Your task to perform on an android device: turn on javascript in the chrome app Image 0: 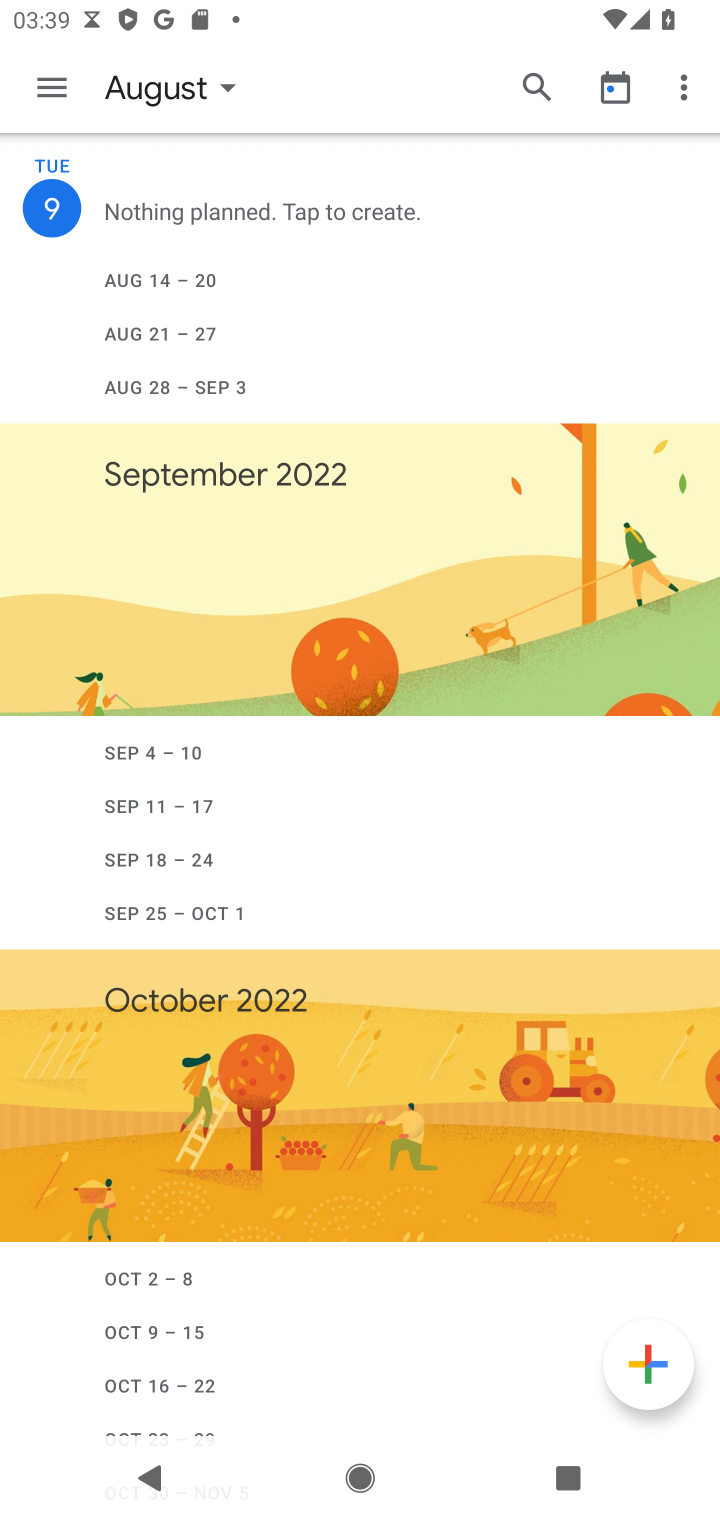
Step 0: press home button
Your task to perform on an android device: turn on javascript in the chrome app Image 1: 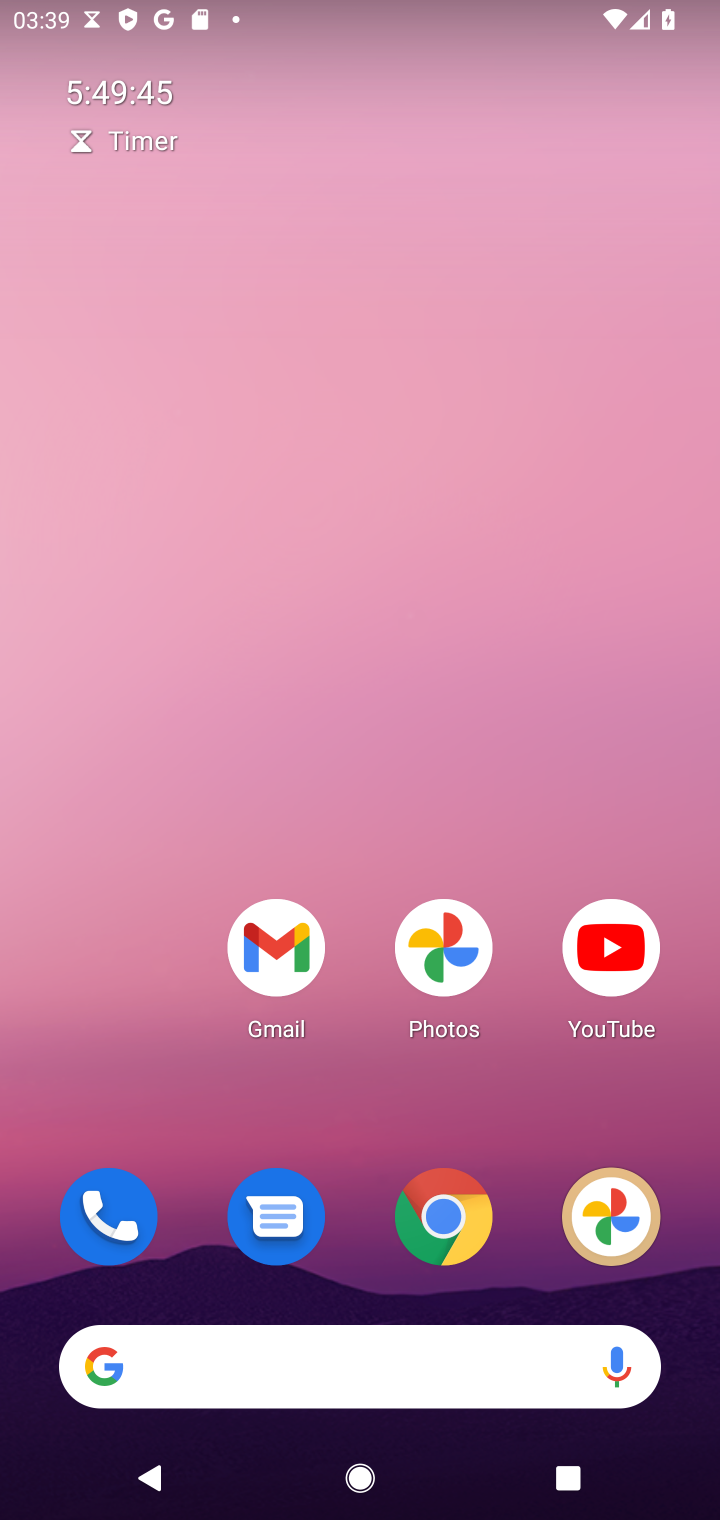
Step 1: click (434, 1207)
Your task to perform on an android device: turn on javascript in the chrome app Image 2: 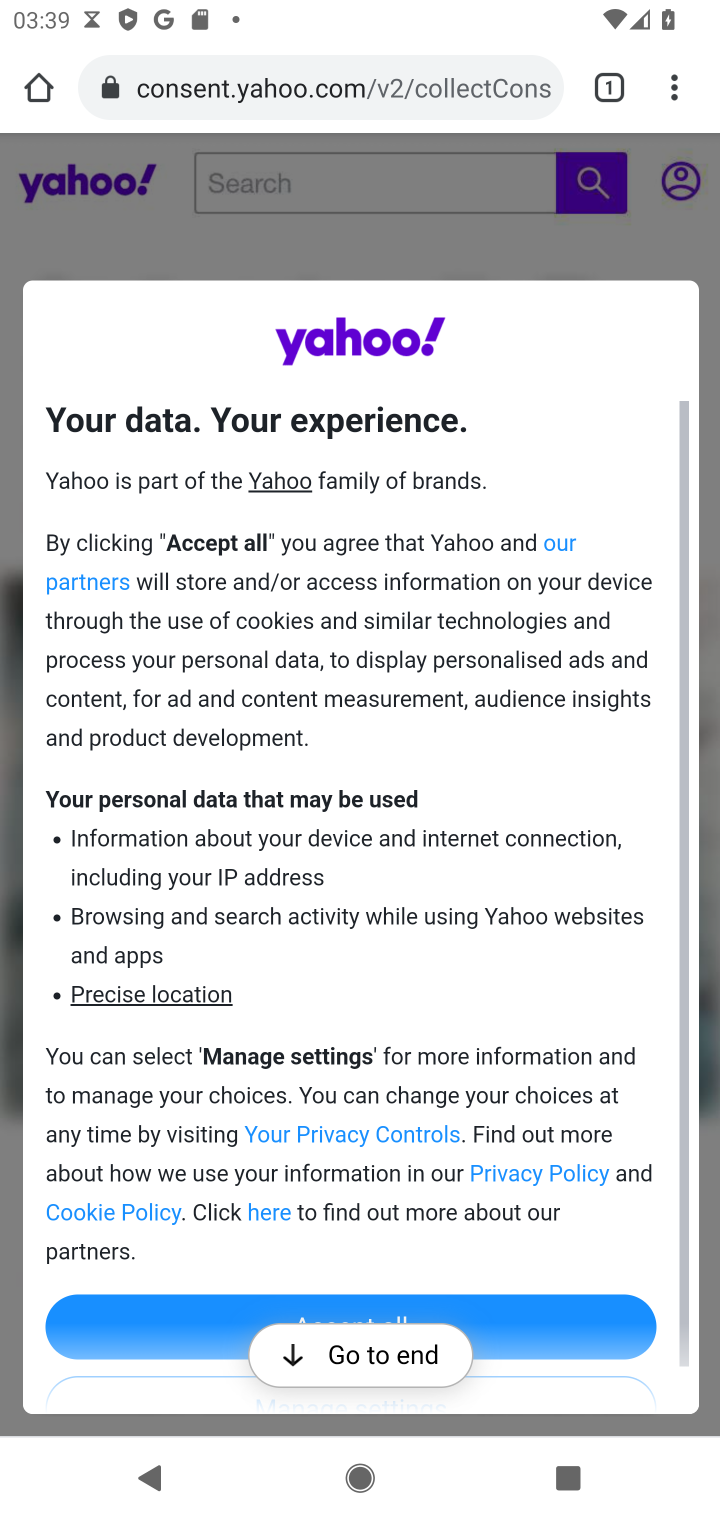
Step 2: click (681, 74)
Your task to perform on an android device: turn on javascript in the chrome app Image 3: 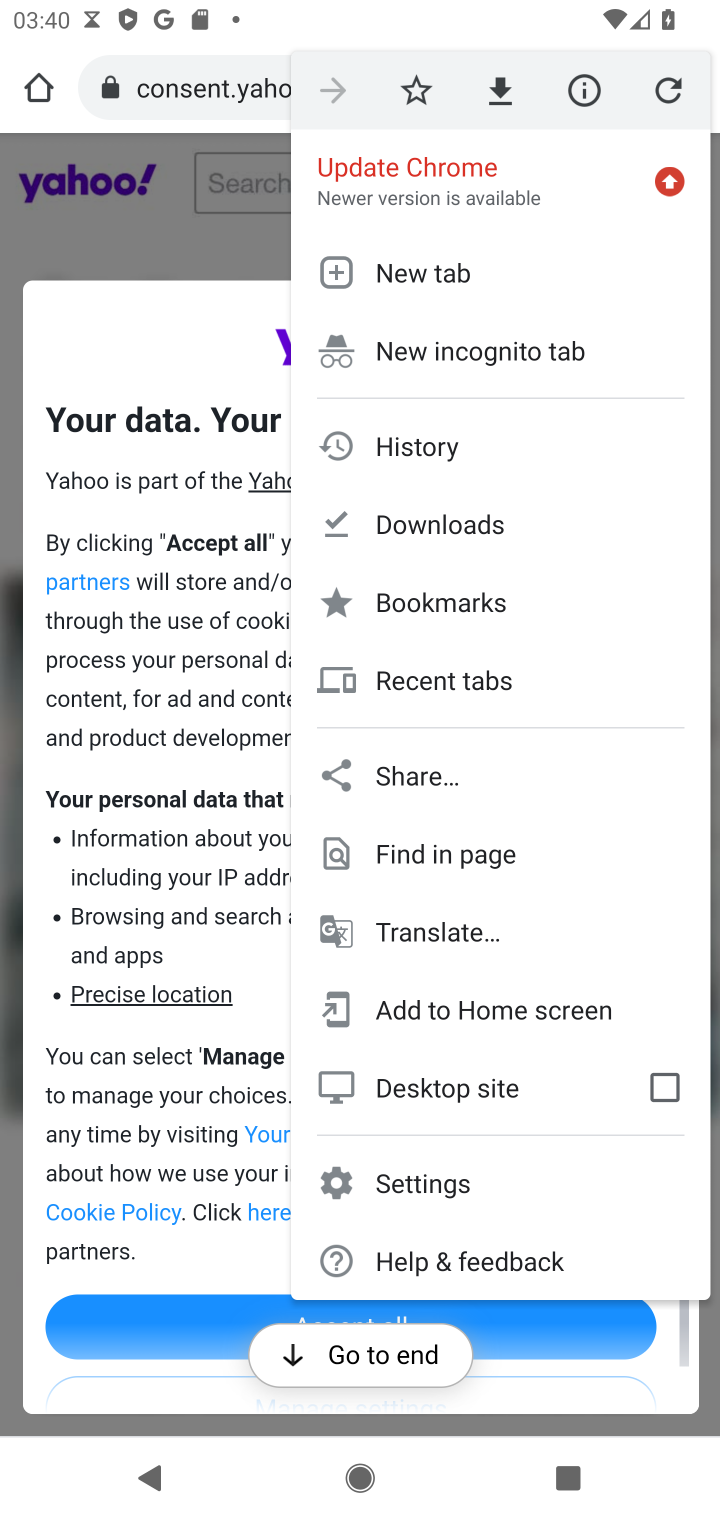
Step 3: click (492, 1188)
Your task to perform on an android device: turn on javascript in the chrome app Image 4: 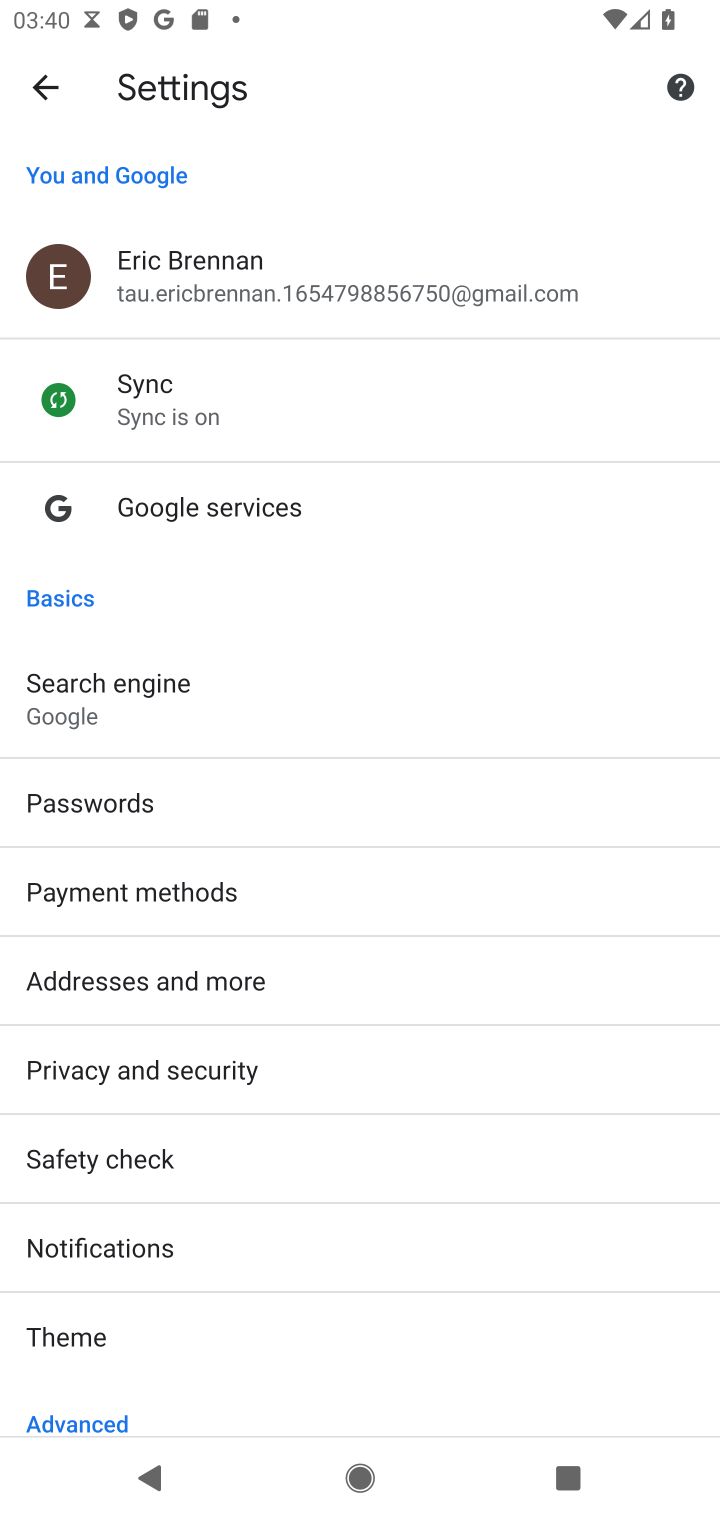
Step 4: drag from (180, 1351) to (262, 35)
Your task to perform on an android device: turn on javascript in the chrome app Image 5: 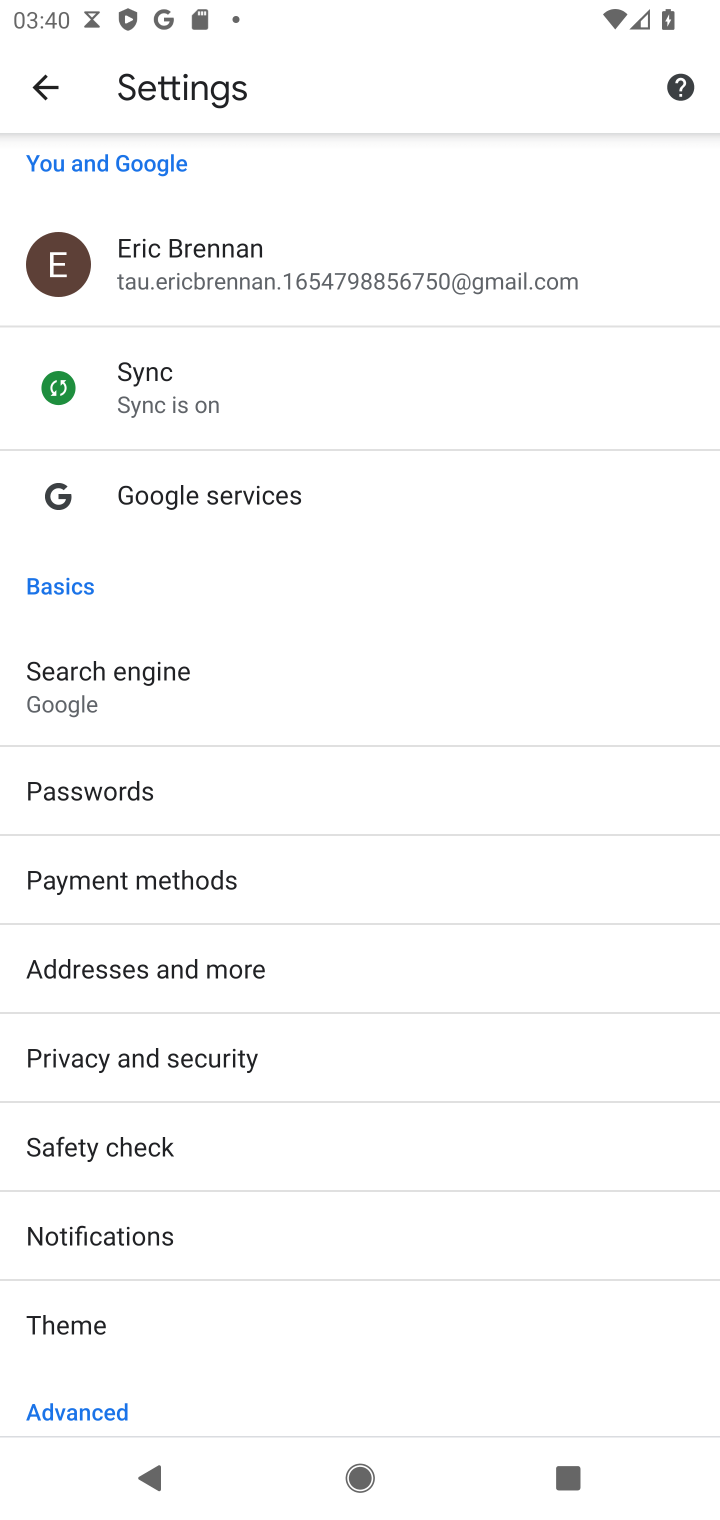
Step 5: drag from (271, 1059) to (270, 609)
Your task to perform on an android device: turn on javascript in the chrome app Image 6: 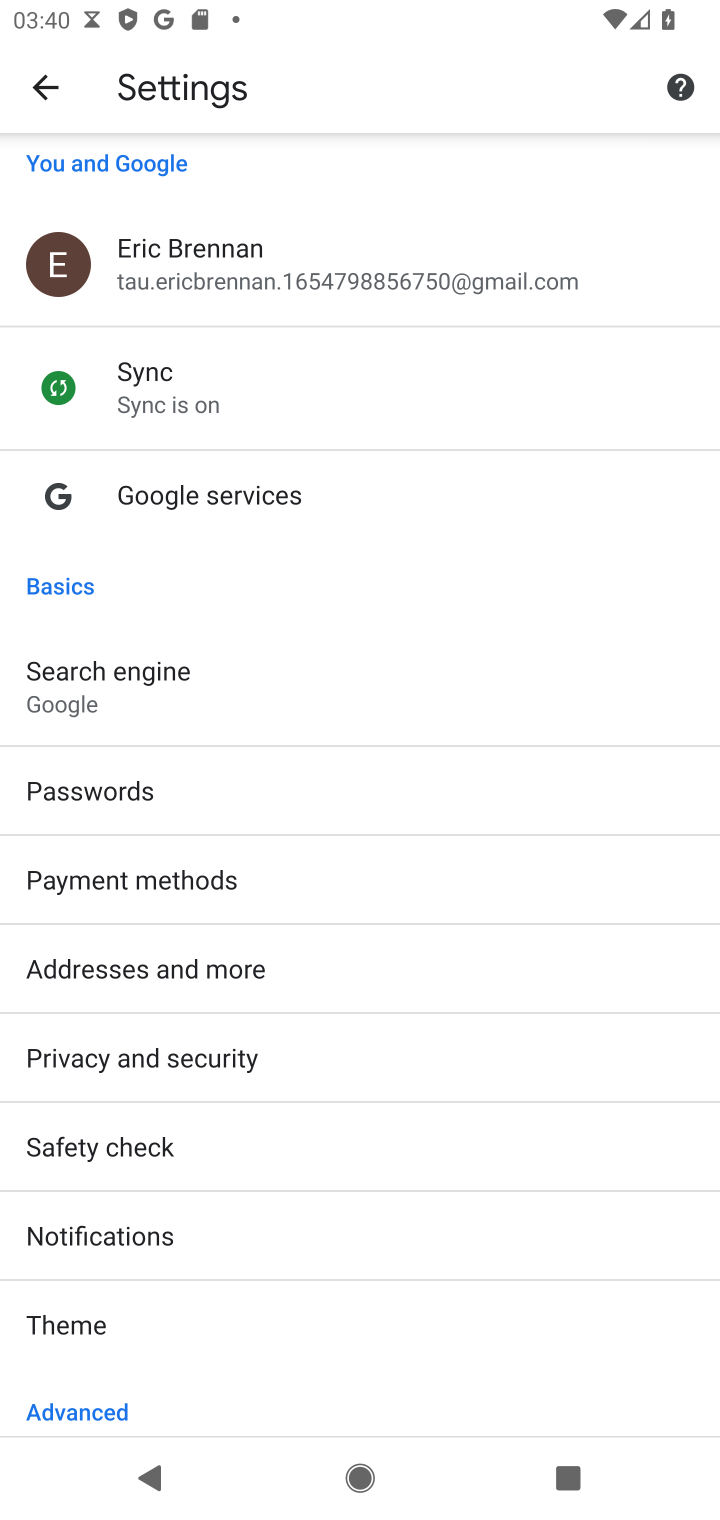
Step 6: drag from (208, 1310) to (285, 498)
Your task to perform on an android device: turn on javascript in the chrome app Image 7: 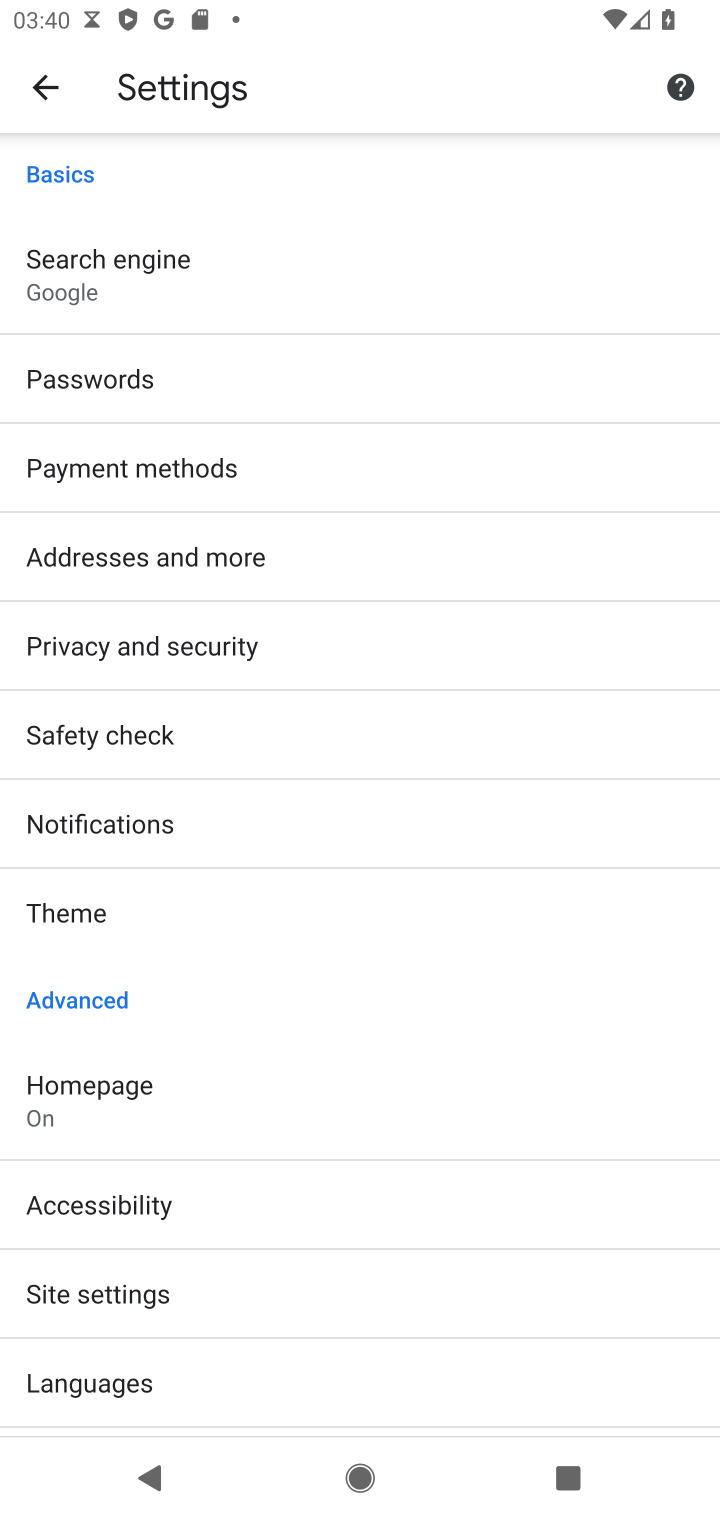
Step 7: click (215, 1284)
Your task to perform on an android device: turn on javascript in the chrome app Image 8: 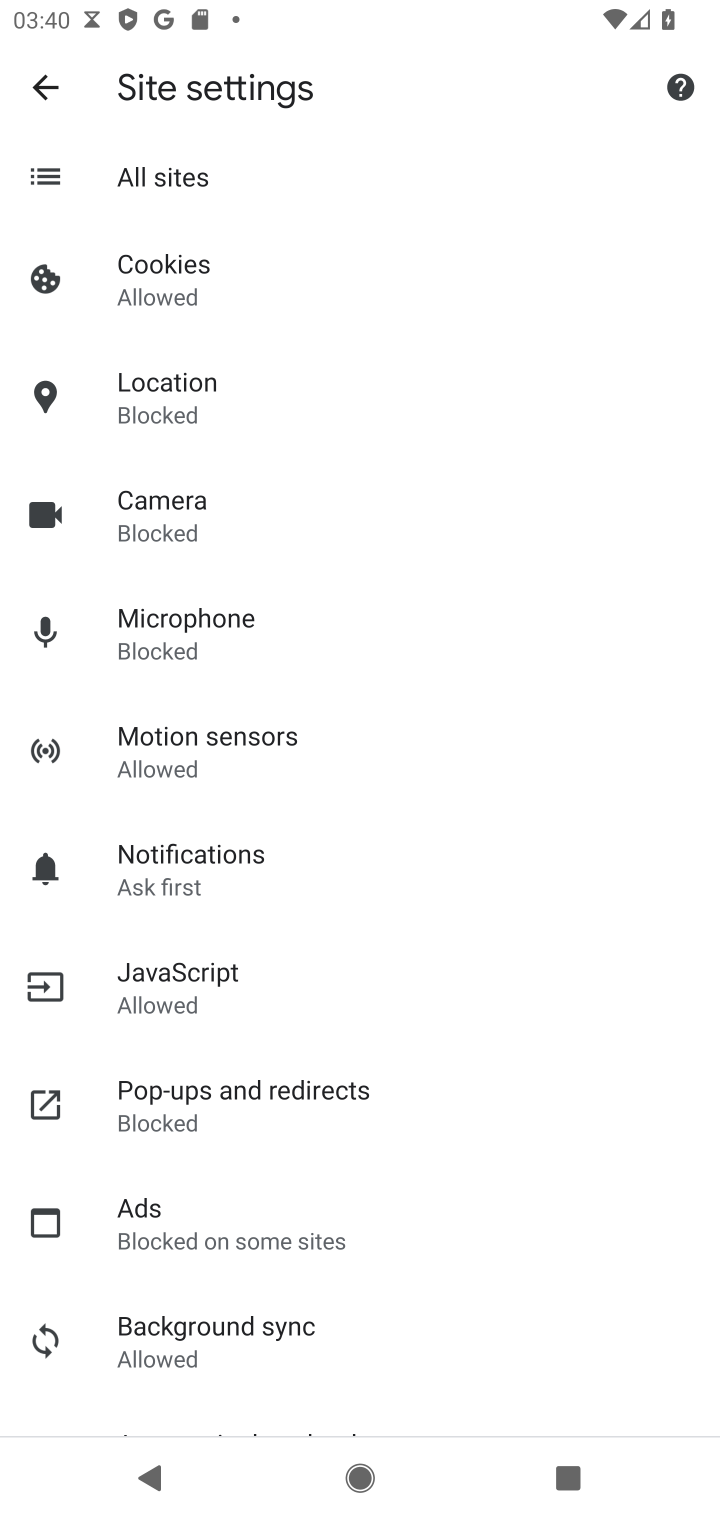
Step 8: click (171, 979)
Your task to perform on an android device: turn on javascript in the chrome app Image 9: 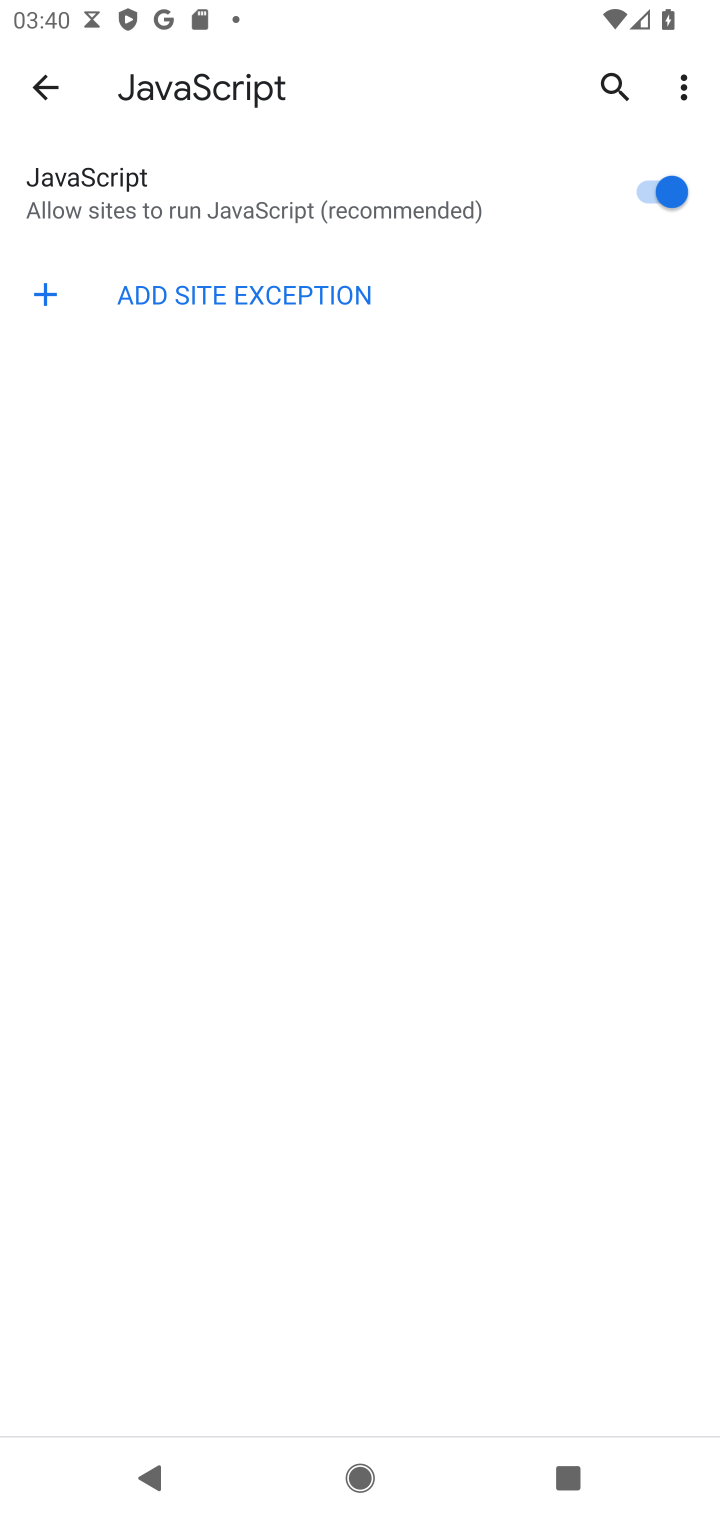
Step 9: task complete